Your task to perform on an android device: open app "Google Drive" (install if not already installed) Image 0: 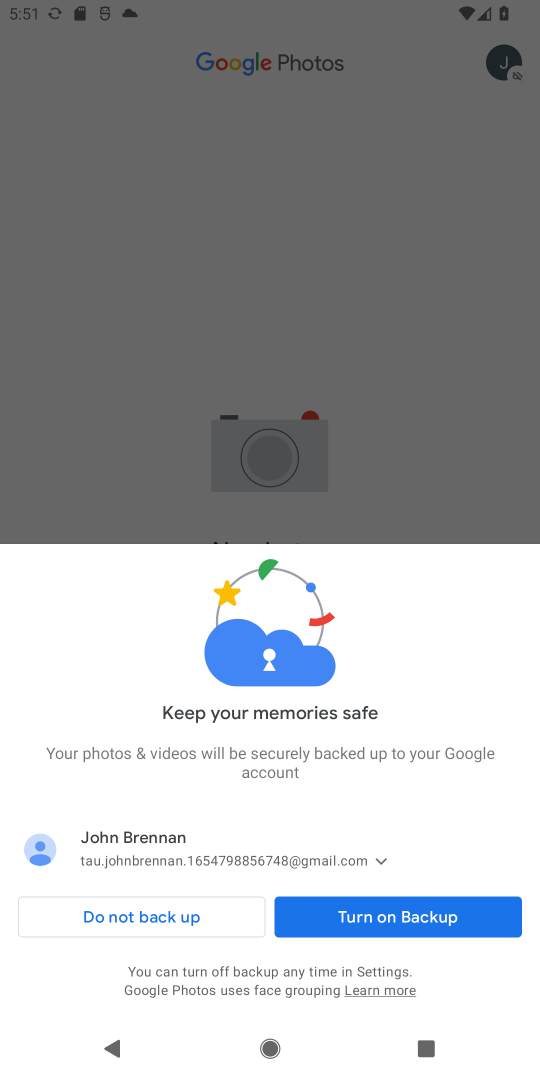
Step 0: press home button
Your task to perform on an android device: open app "Google Drive" (install if not already installed) Image 1: 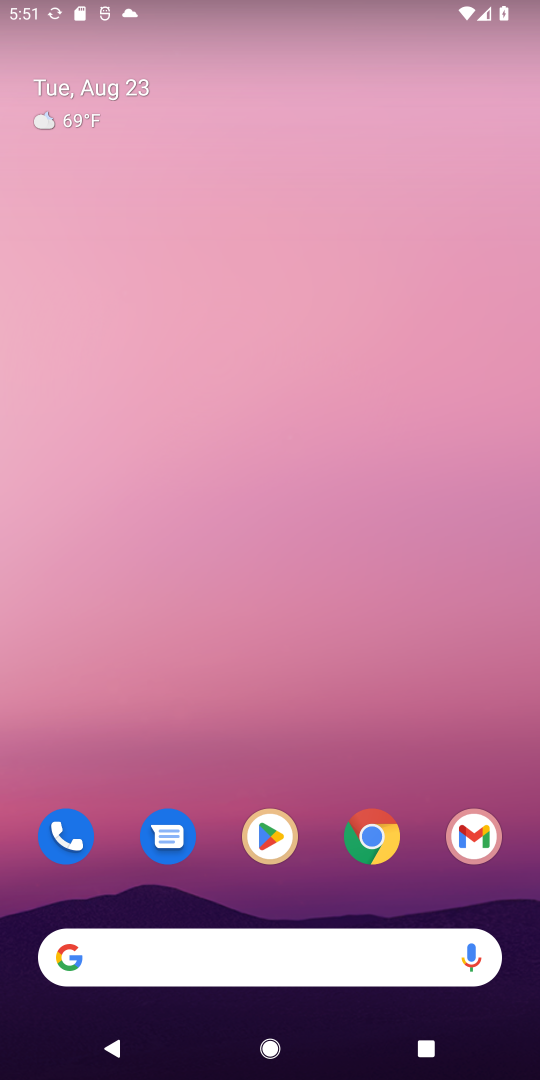
Step 1: click (272, 836)
Your task to perform on an android device: open app "Google Drive" (install if not already installed) Image 2: 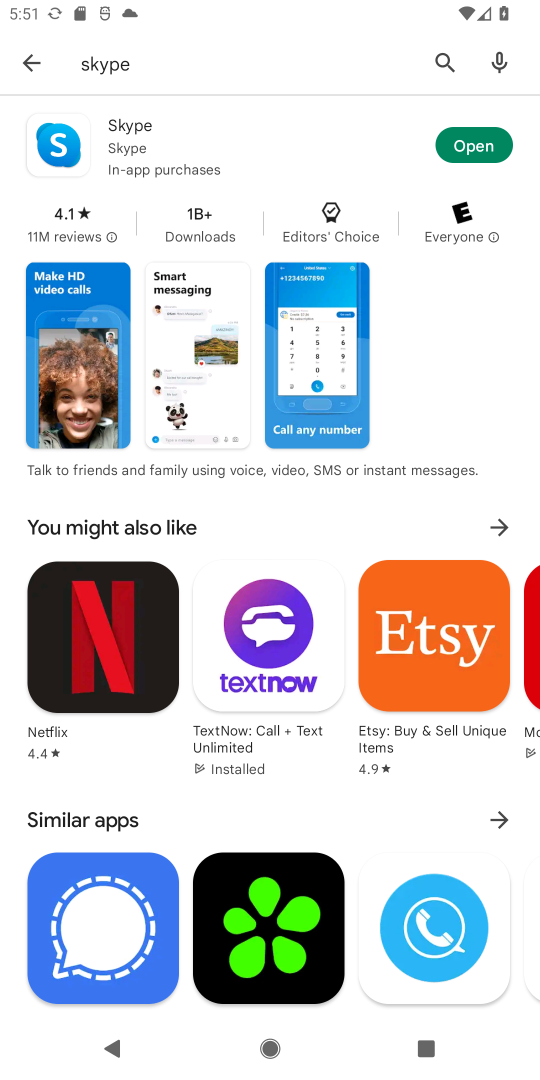
Step 2: click (440, 53)
Your task to perform on an android device: open app "Google Drive" (install if not already installed) Image 3: 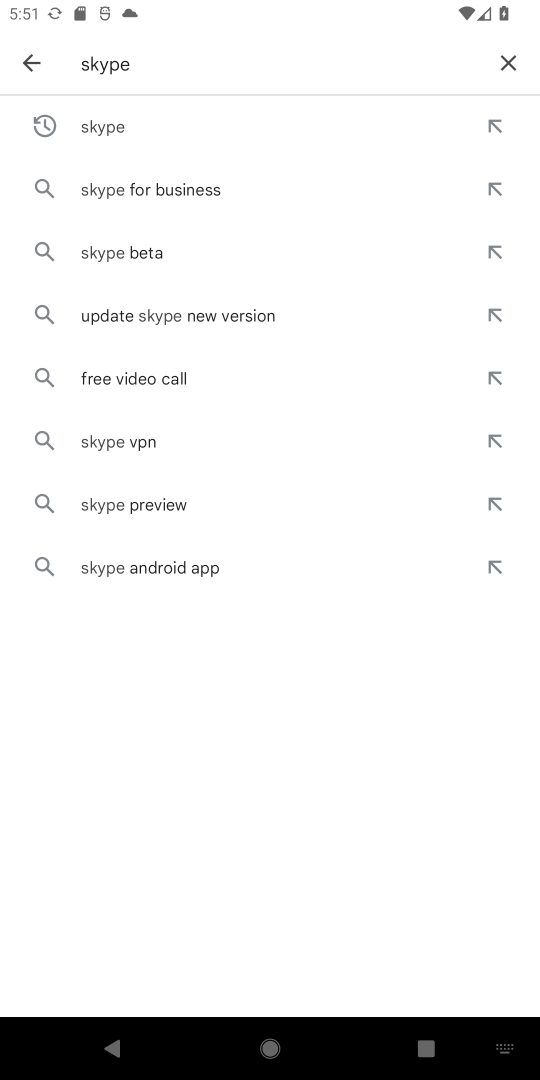
Step 3: click (507, 60)
Your task to perform on an android device: open app "Google Drive" (install if not already installed) Image 4: 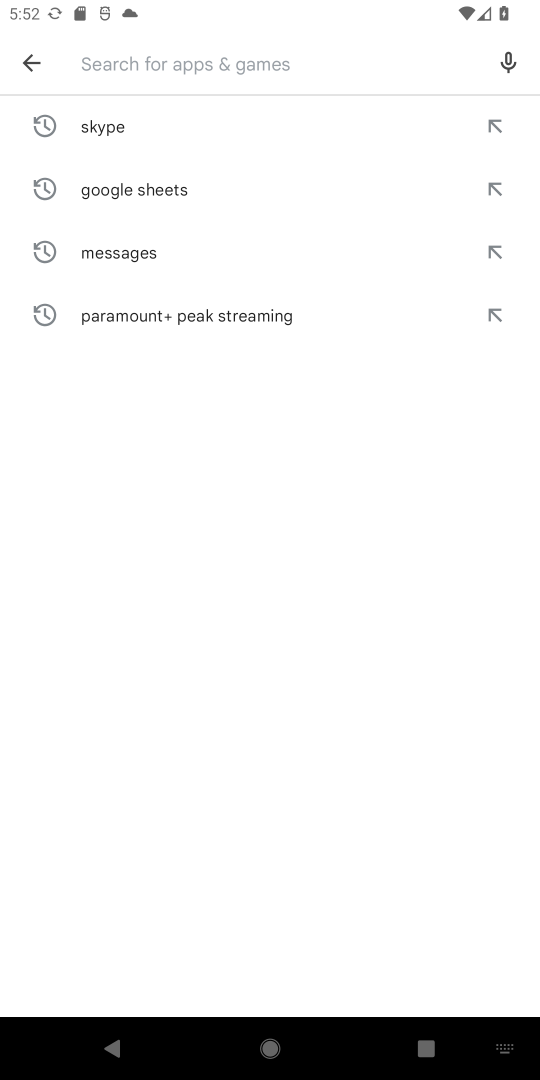
Step 4: type "Google Drive"
Your task to perform on an android device: open app "Google Drive" (install if not already installed) Image 5: 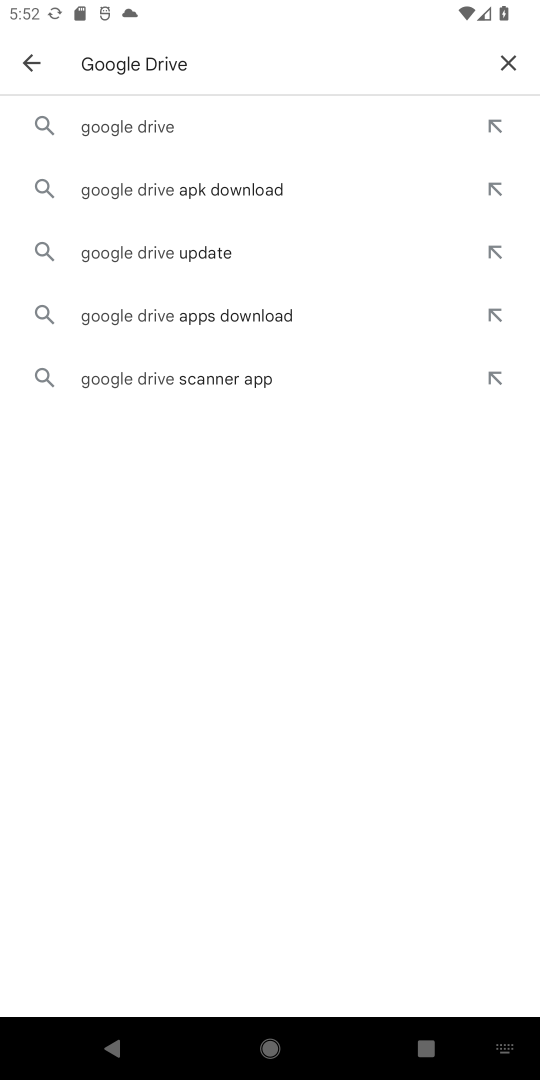
Step 5: click (116, 114)
Your task to perform on an android device: open app "Google Drive" (install if not already installed) Image 6: 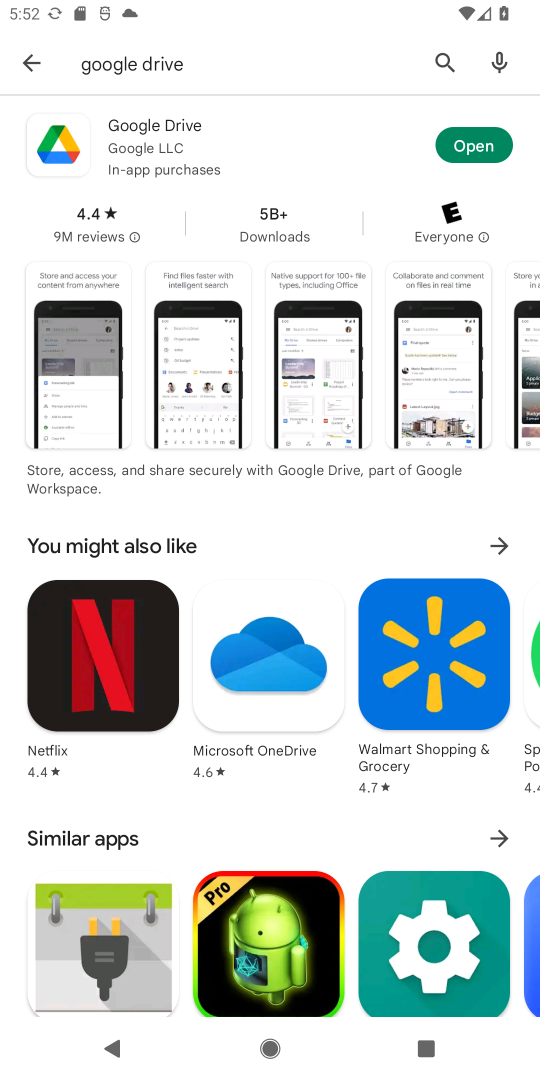
Step 6: click (470, 140)
Your task to perform on an android device: open app "Google Drive" (install if not already installed) Image 7: 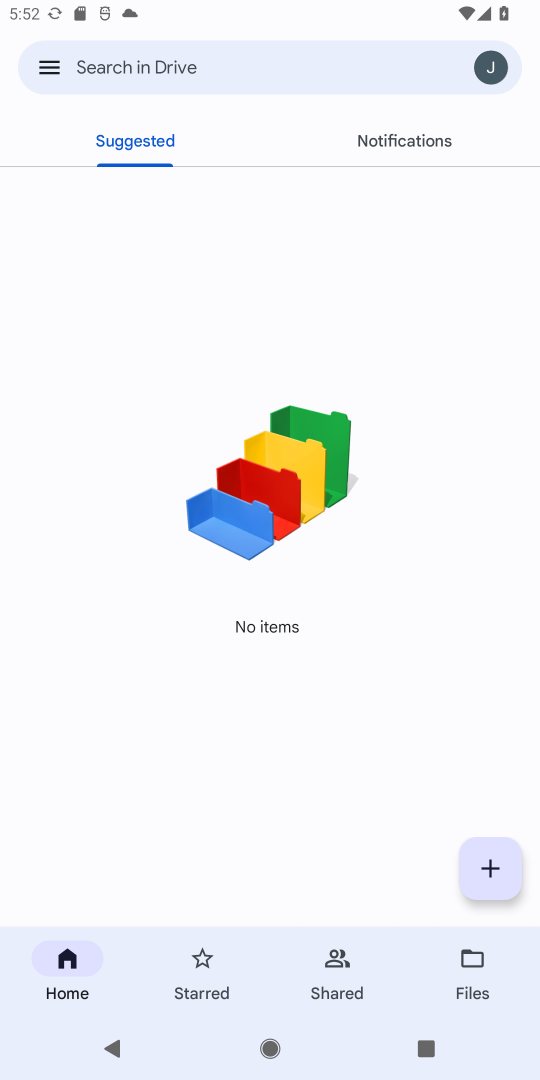
Step 7: task complete